Your task to perform on an android device: Go to Wikipedia Image 0: 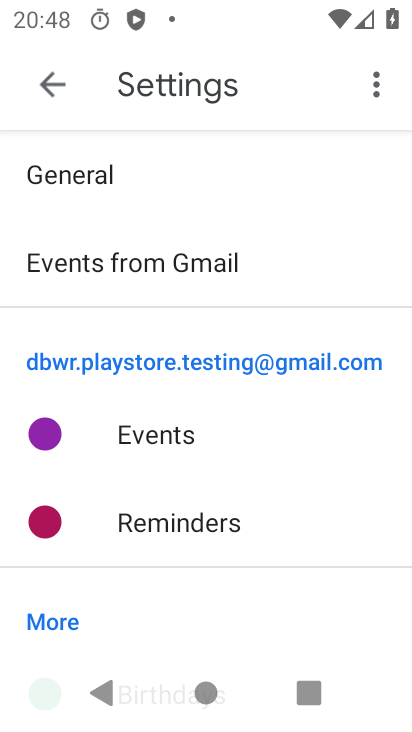
Step 0: press back button
Your task to perform on an android device: Go to Wikipedia Image 1: 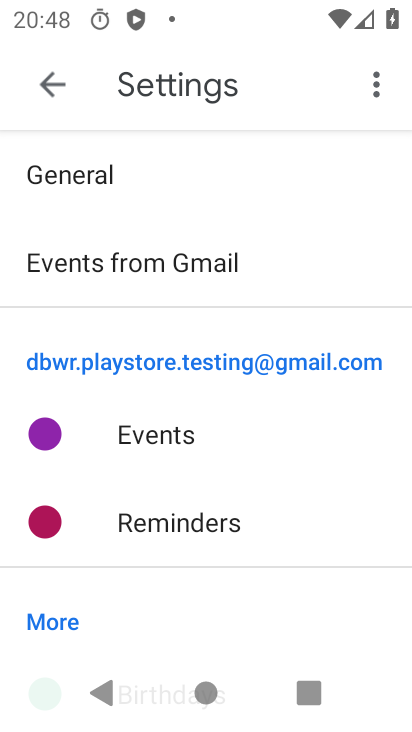
Step 1: press back button
Your task to perform on an android device: Go to Wikipedia Image 2: 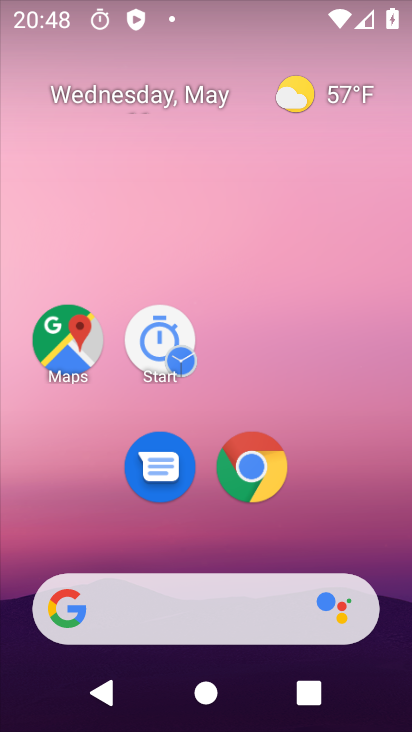
Step 2: drag from (348, 570) to (22, 124)
Your task to perform on an android device: Go to Wikipedia Image 3: 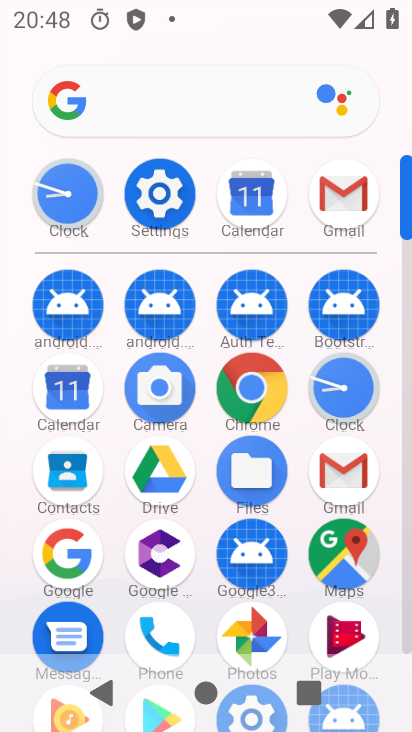
Step 3: click (247, 379)
Your task to perform on an android device: Go to Wikipedia Image 4: 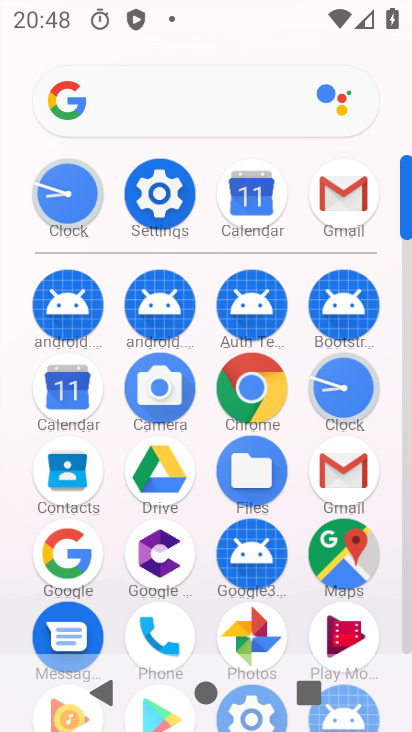
Step 4: click (248, 379)
Your task to perform on an android device: Go to Wikipedia Image 5: 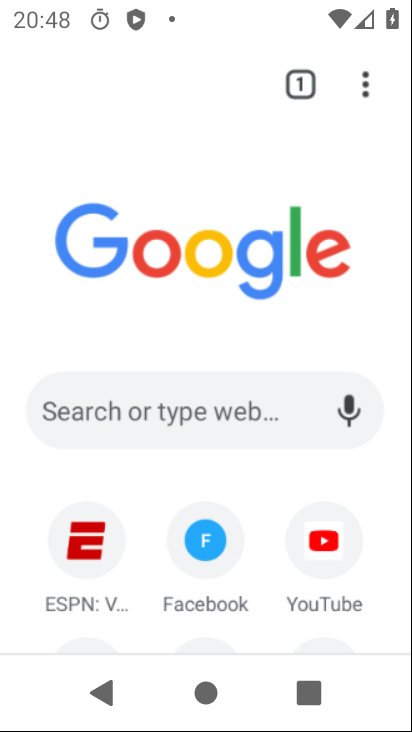
Step 5: click (252, 386)
Your task to perform on an android device: Go to Wikipedia Image 6: 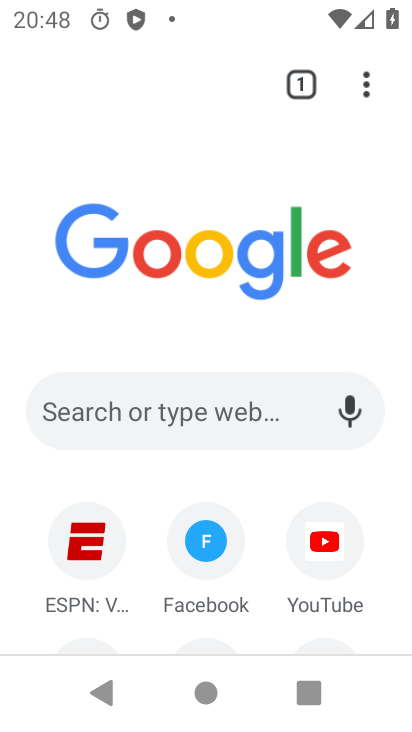
Step 6: drag from (285, 571) to (175, 238)
Your task to perform on an android device: Go to Wikipedia Image 7: 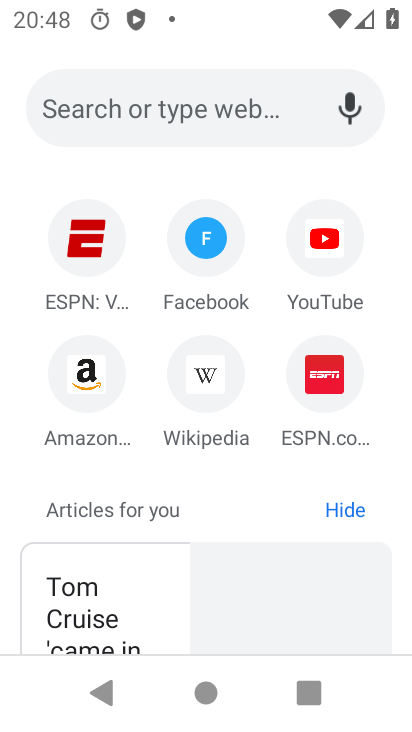
Step 7: drag from (256, 505) to (244, 216)
Your task to perform on an android device: Go to Wikipedia Image 8: 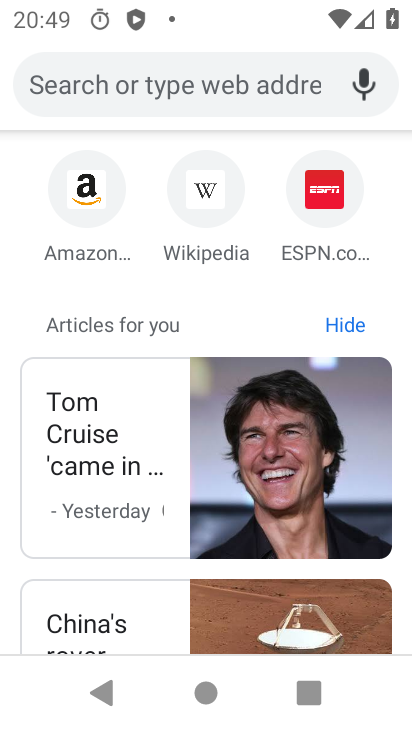
Step 8: click (212, 180)
Your task to perform on an android device: Go to Wikipedia Image 9: 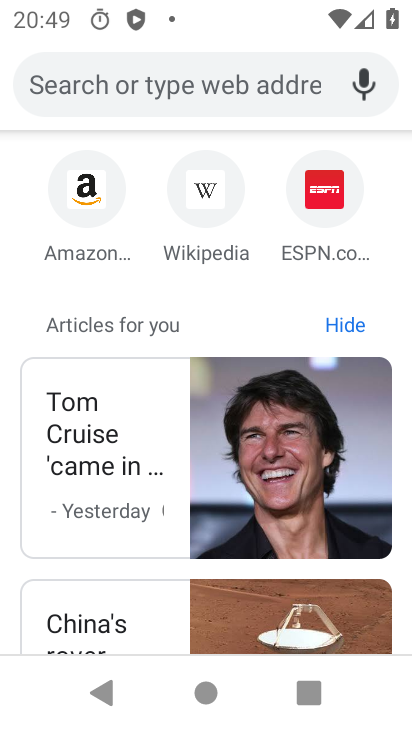
Step 9: click (212, 180)
Your task to perform on an android device: Go to Wikipedia Image 10: 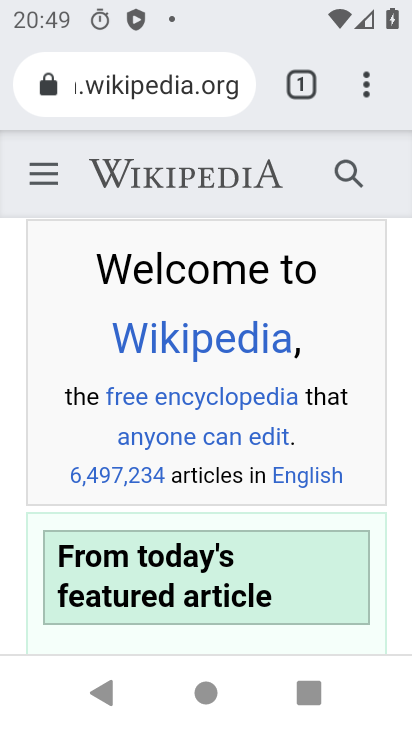
Step 10: task complete